Your task to perform on an android device: change your default location settings in chrome Image 0: 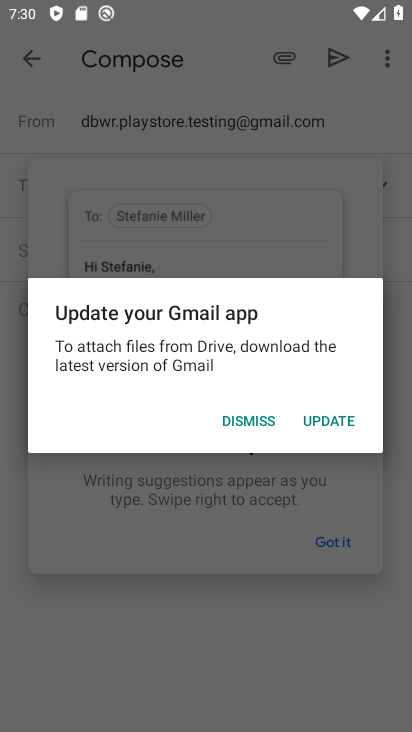
Step 0: press home button
Your task to perform on an android device: change your default location settings in chrome Image 1: 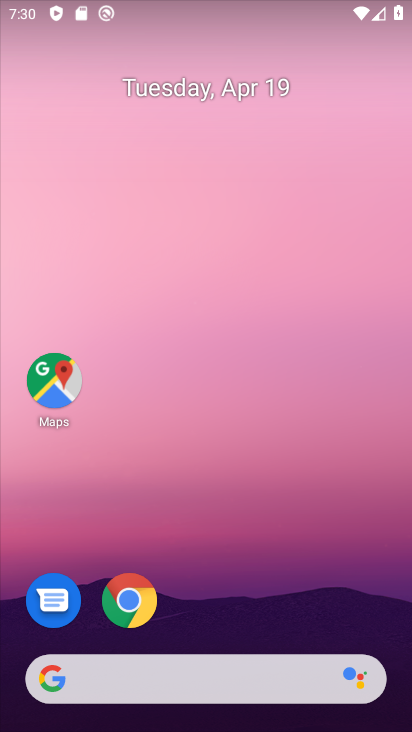
Step 1: drag from (362, 580) to (360, 122)
Your task to perform on an android device: change your default location settings in chrome Image 2: 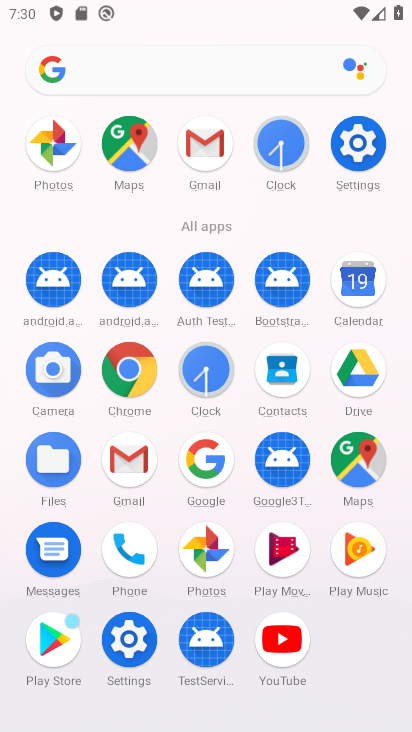
Step 2: click (129, 372)
Your task to perform on an android device: change your default location settings in chrome Image 3: 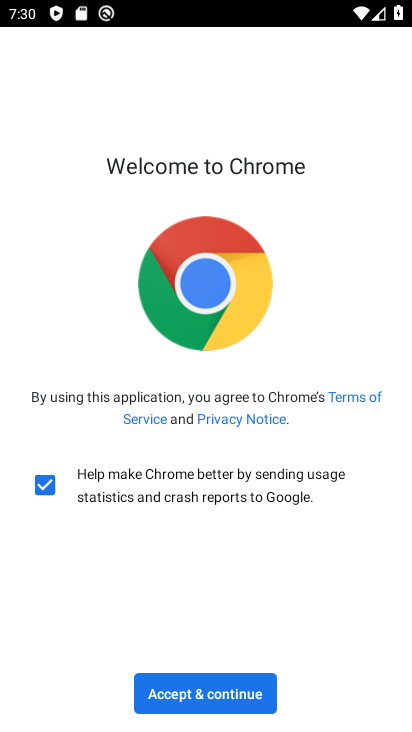
Step 3: click (187, 696)
Your task to perform on an android device: change your default location settings in chrome Image 4: 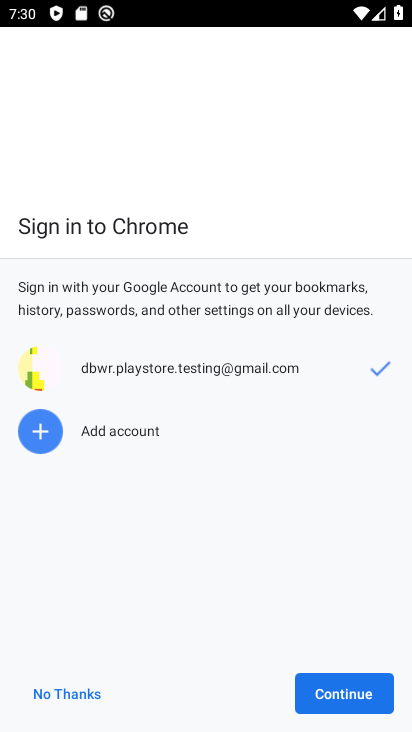
Step 4: click (328, 697)
Your task to perform on an android device: change your default location settings in chrome Image 5: 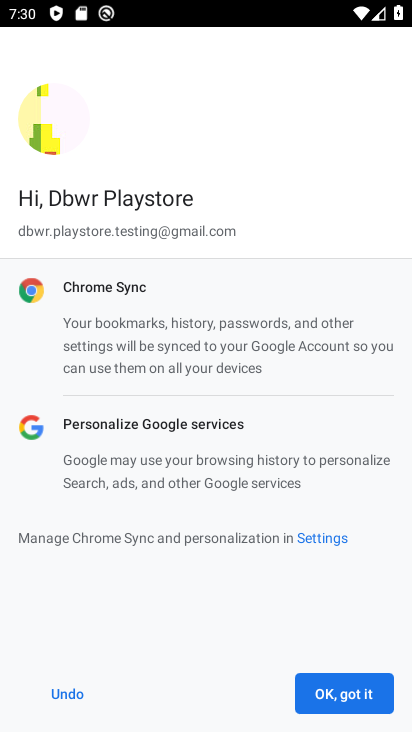
Step 5: click (361, 686)
Your task to perform on an android device: change your default location settings in chrome Image 6: 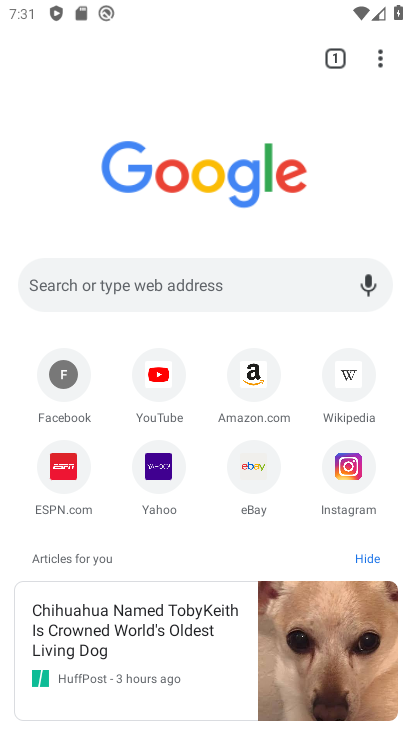
Step 6: click (380, 62)
Your task to perform on an android device: change your default location settings in chrome Image 7: 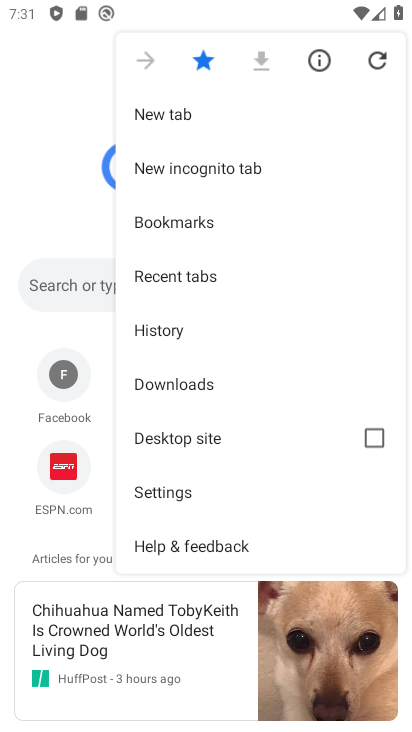
Step 7: click (175, 492)
Your task to perform on an android device: change your default location settings in chrome Image 8: 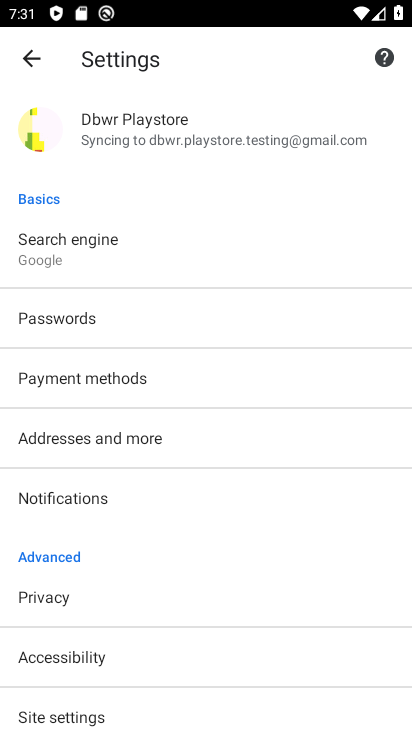
Step 8: drag from (257, 532) to (287, 365)
Your task to perform on an android device: change your default location settings in chrome Image 9: 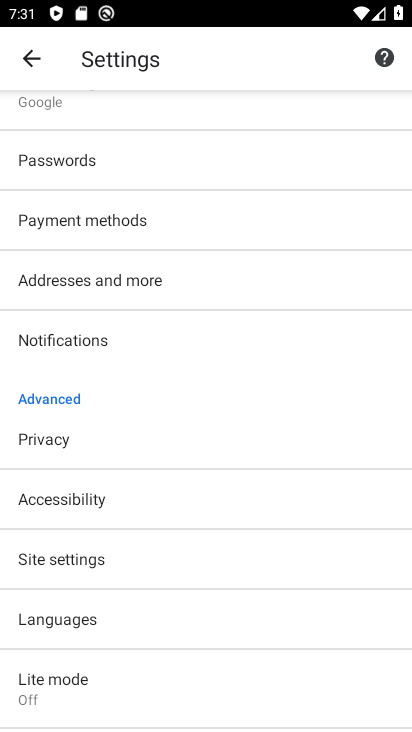
Step 9: drag from (281, 603) to (309, 399)
Your task to perform on an android device: change your default location settings in chrome Image 10: 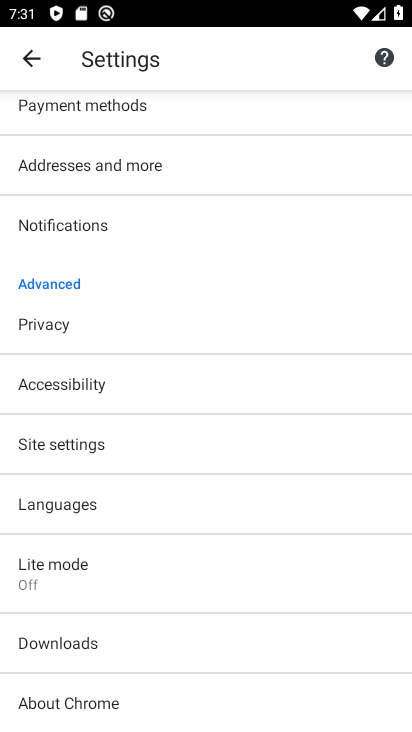
Step 10: drag from (335, 301) to (348, 502)
Your task to perform on an android device: change your default location settings in chrome Image 11: 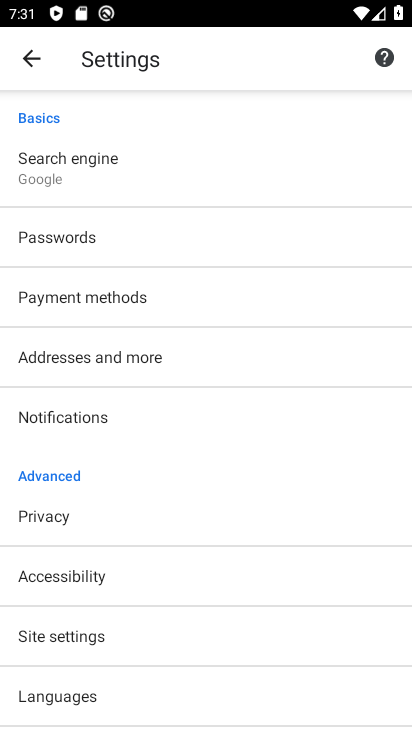
Step 11: click (208, 633)
Your task to perform on an android device: change your default location settings in chrome Image 12: 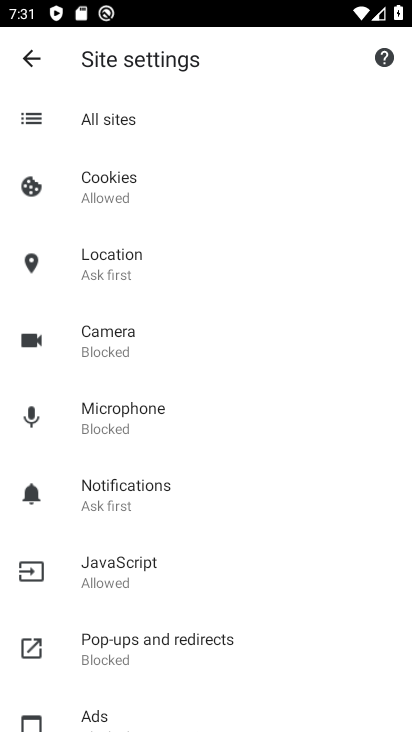
Step 12: click (126, 259)
Your task to perform on an android device: change your default location settings in chrome Image 13: 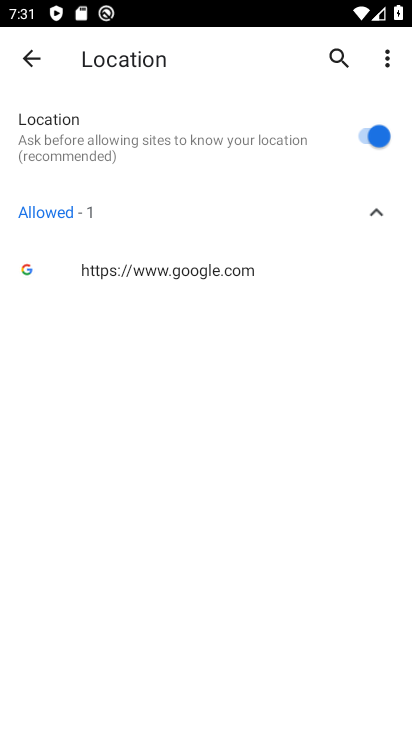
Step 13: click (371, 134)
Your task to perform on an android device: change your default location settings in chrome Image 14: 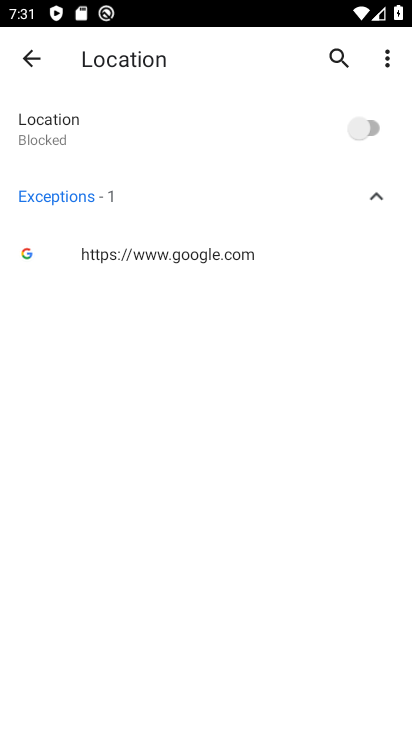
Step 14: task complete